Your task to perform on an android device: turn on improve location accuracy Image 0: 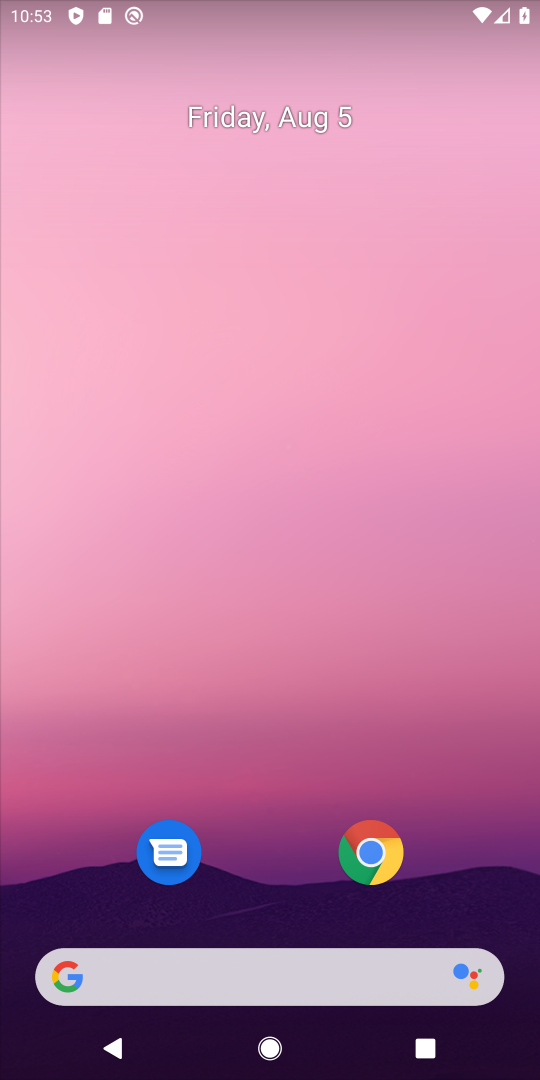
Step 0: drag from (230, 950) to (291, 242)
Your task to perform on an android device: turn on improve location accuracy Image 1: 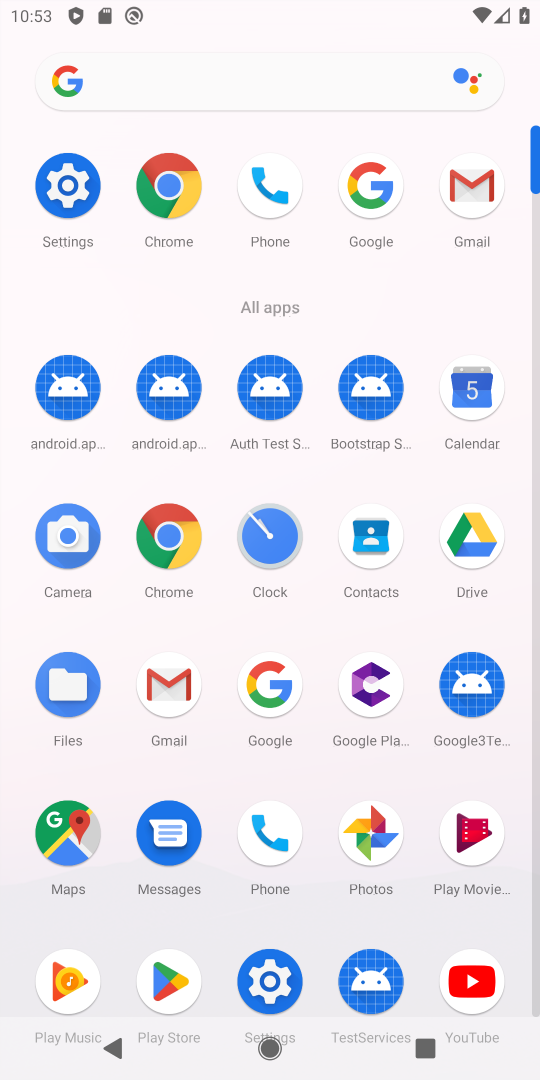
Step 1: click (70, 196)
Your task to perform on an android device: turn on improve location accuracy Image 2: 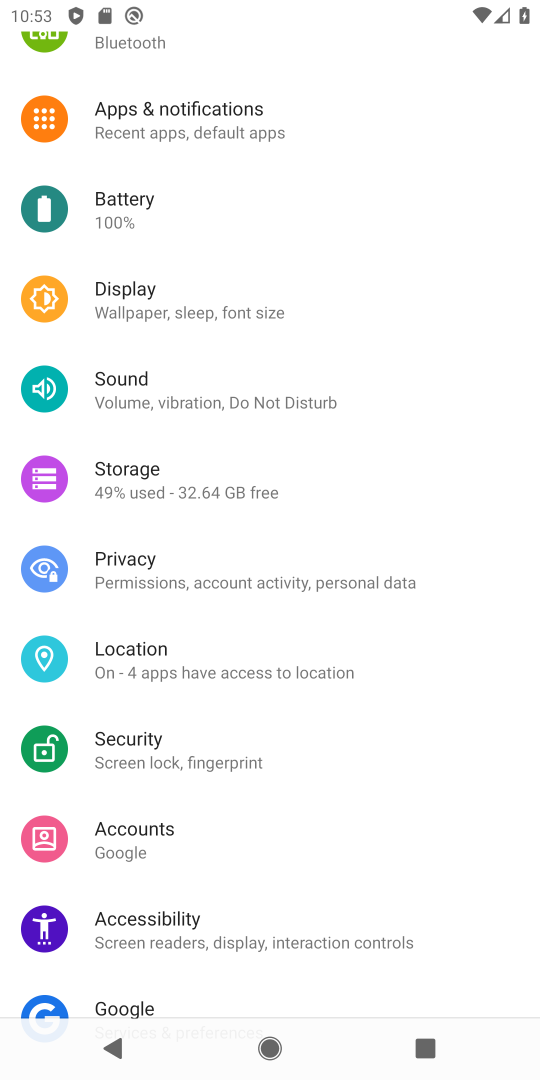
Step 2: click (140, 671)
Your task to perform on an android device: turn on improve location accuracy Image 3: 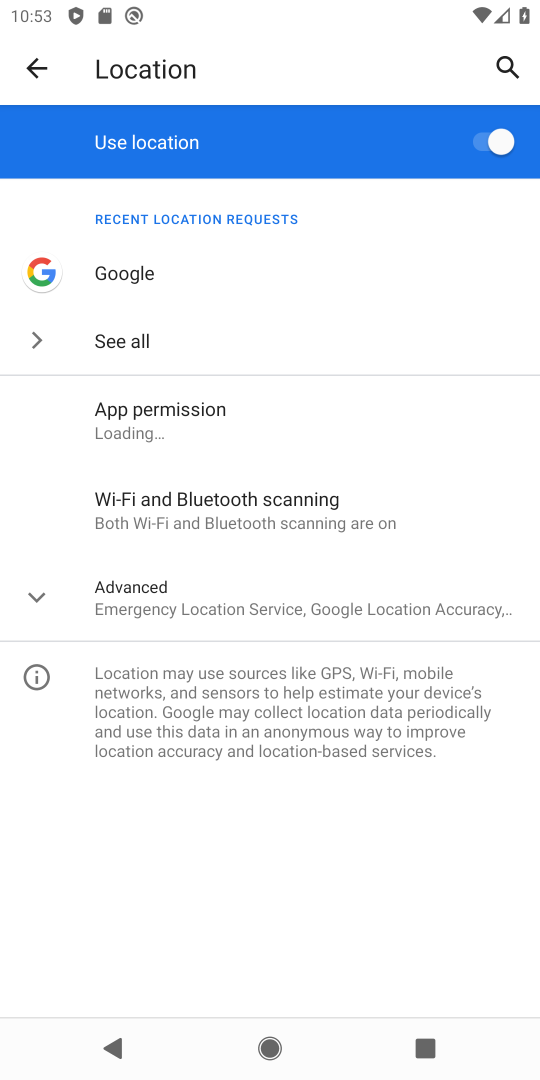
Step 3: click (121, 607)
Your task to perform on an android device: turn on improve location accuracy Image 4: 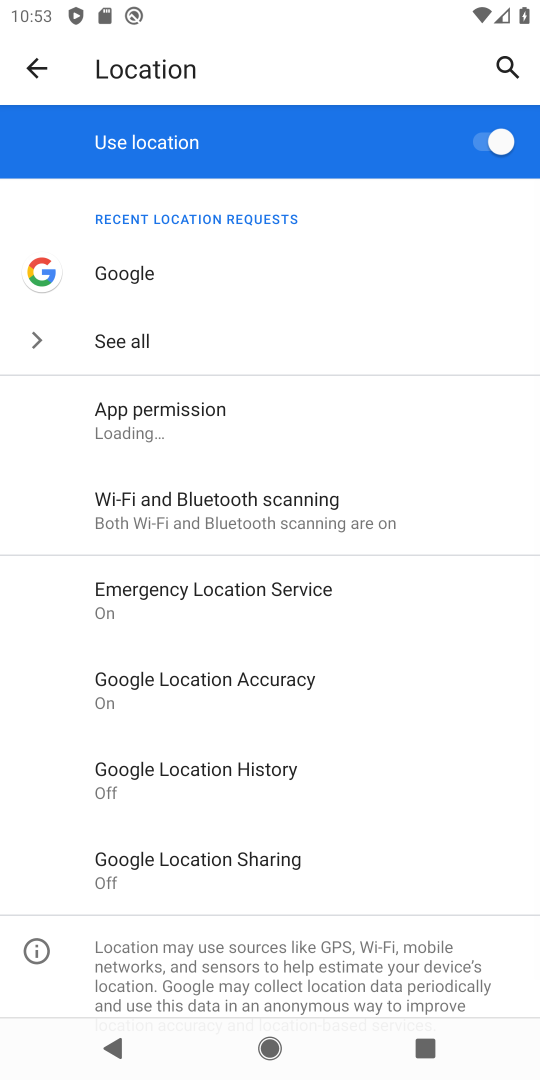
Step 4: click (206, 674)
Your task to perform on an android device: turn on improve location accuracy Image 5: 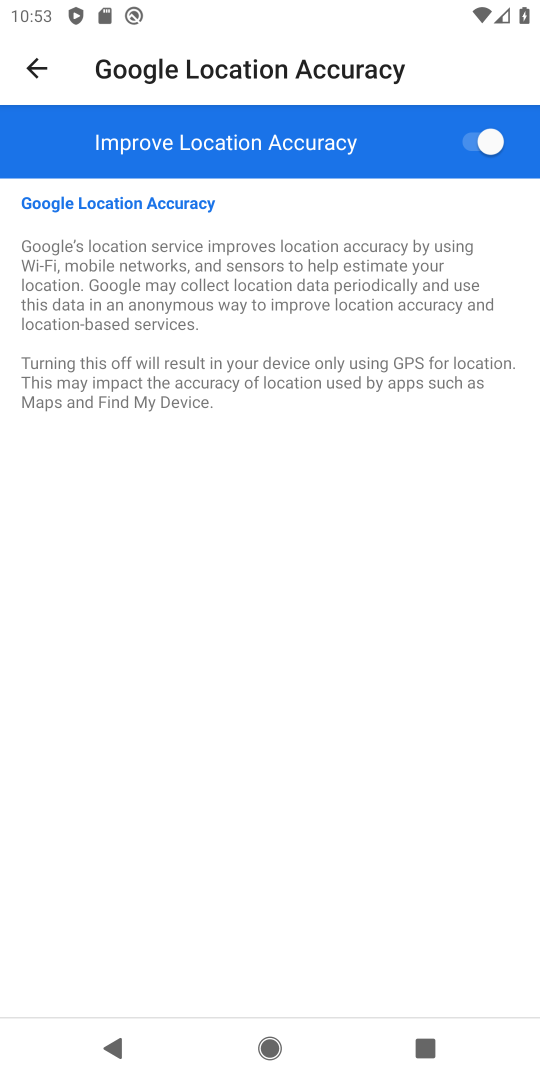
Step 5: task complete